Your task to perform on an android device: create a new album in the google photos Image 0: 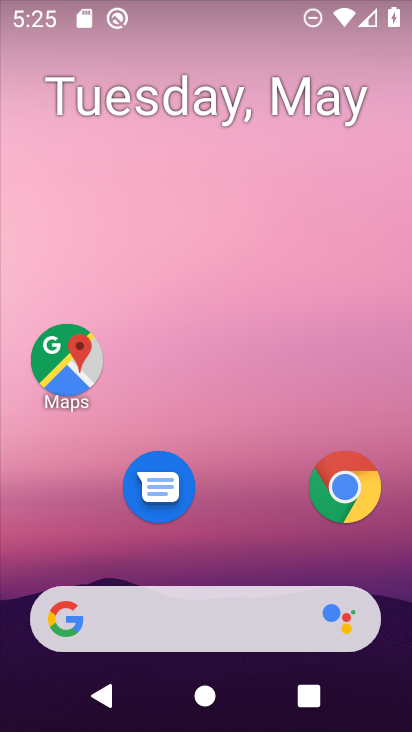
Step 0: drag from (257, 566) to (200, 89)
Your task to perform on an android device: create a new album in the google photos Image 1: 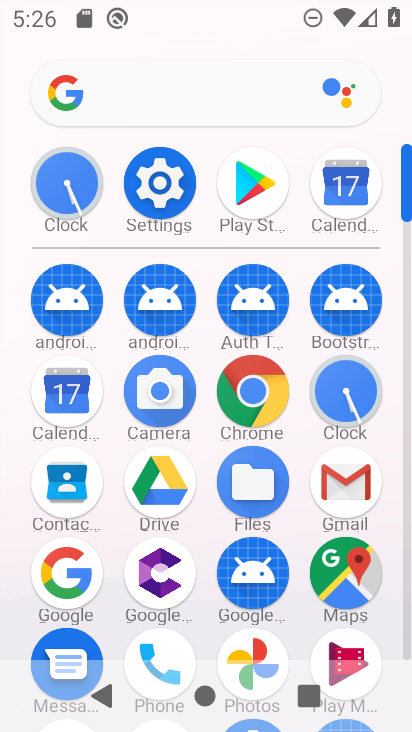
Step 1: click (272, 645)
Your task to perform on an android device: create a new album in the google photos Image 2: 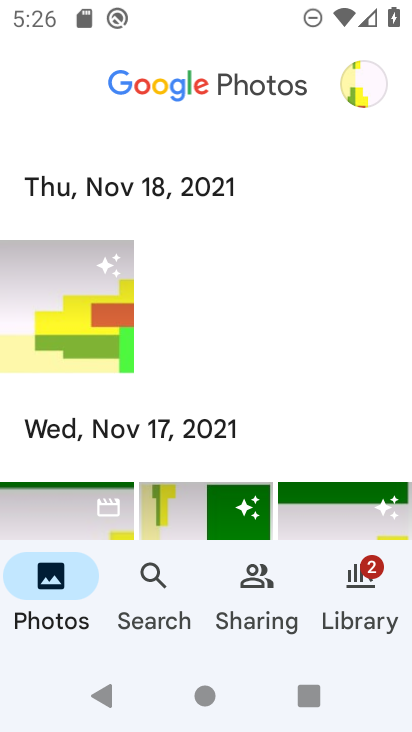
Step 2: click (352, 88)
Your task to perform on an android device: create a new album in the google photos Image 3: 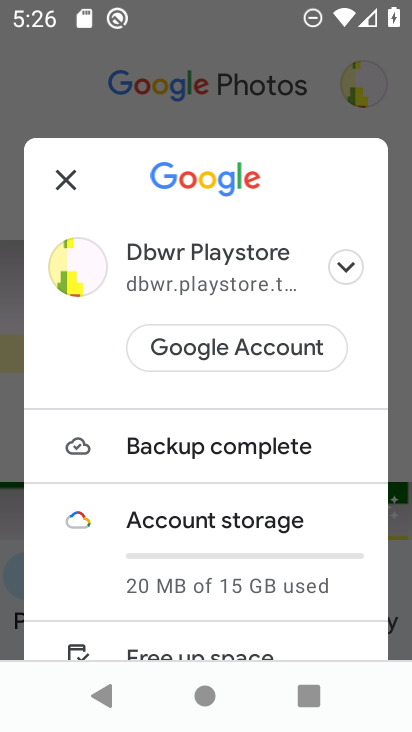
Step 3: click (97, 310)
Your task to perform on an android device: create a new album in the google photos Image 4: 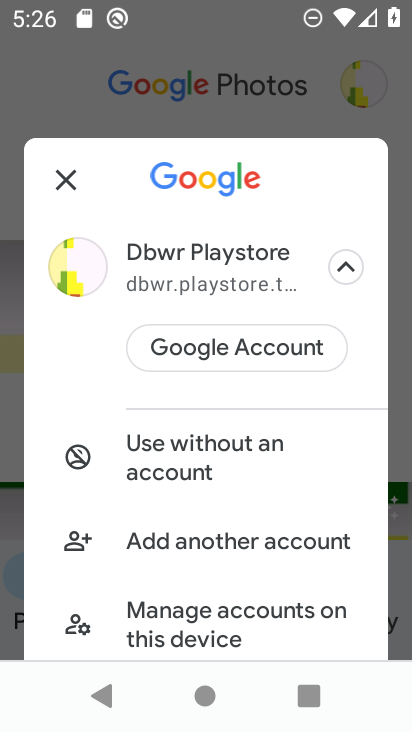
Step 4: click (99, 336)
Your task to perform on an android device: create a new album in the google photos Image 5: 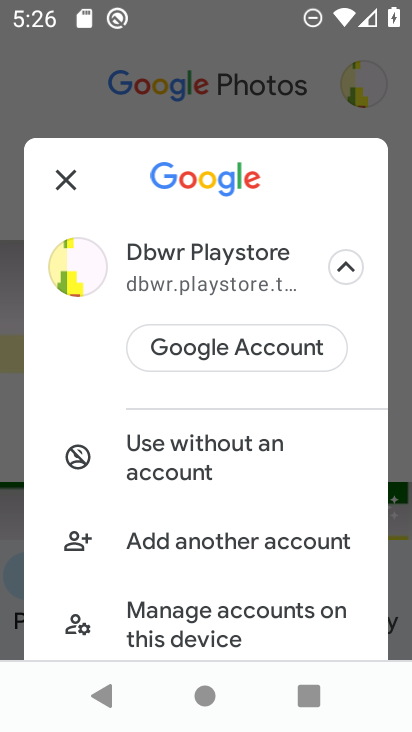
Step 5: drag from (100, 370) to (96, 216)
Your task to perform on an android device: create a new album in the google photos Image 6: 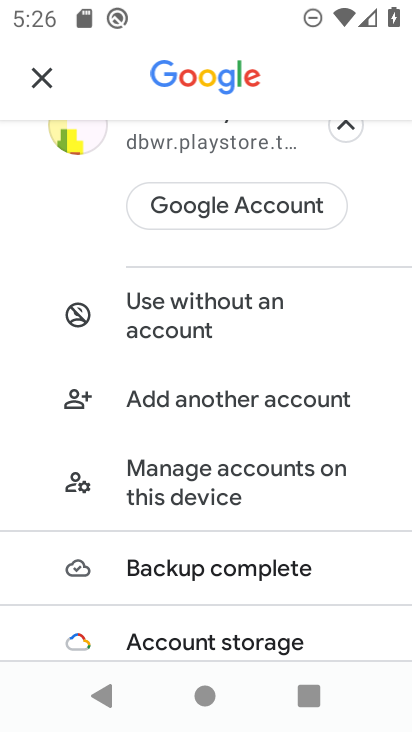
Step 6: click (330, 140)
Your task to perform on an android device: create a new album in the google photos Image 7: 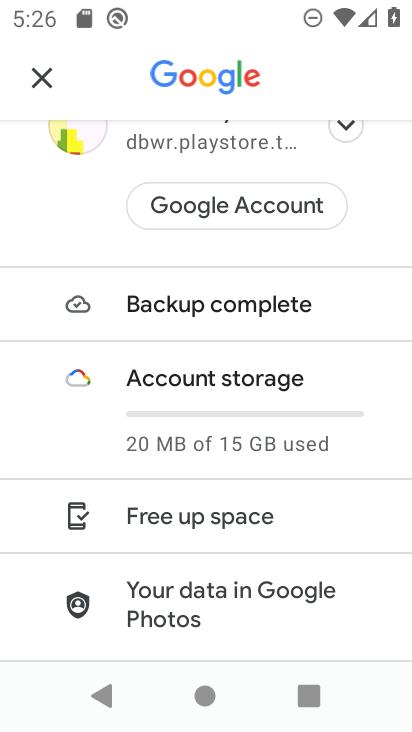
Step 7: drag from (201, 509) to (196, 378)
Your task to perform on an android device: create a new album in the google photos Image 8: 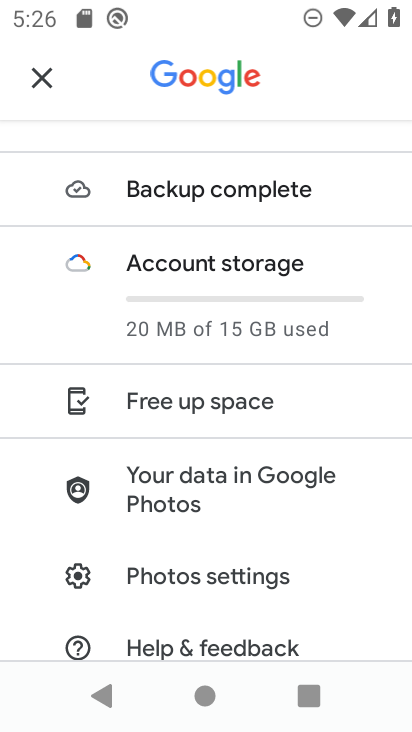
Step 8: click (212, 573)
Your task to perform on an android device: create a new album in the google photos Image 9: 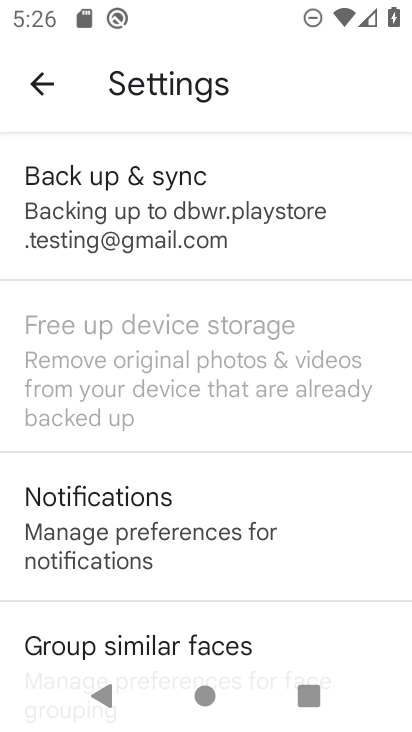
Step 9: click (38, 85)
Your task to perform on an android device: create a new album in the google photos Image 10: 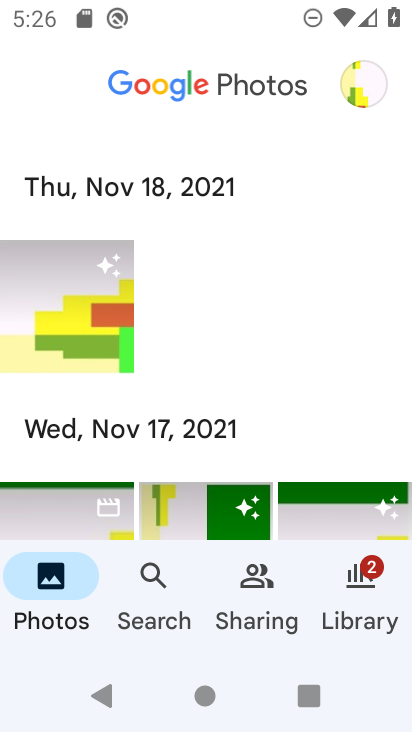
Step 10: click (353, 596)
Your task to perform on an android device: create a new album in the google photos Image 11: 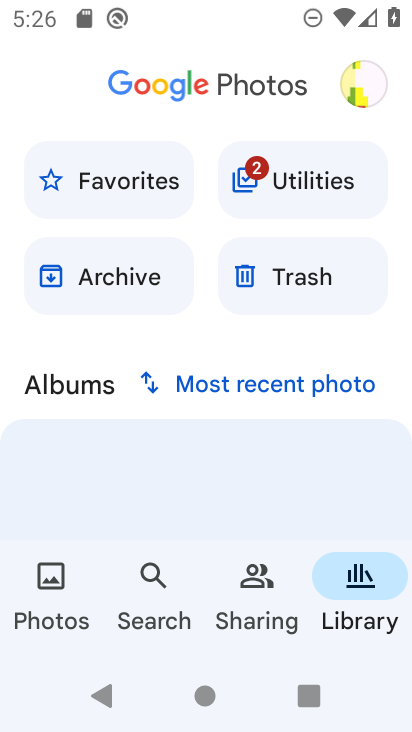
Step 11: click (143, 460)
Your task to perform on an android device: create a new album in the google photos Image 12: 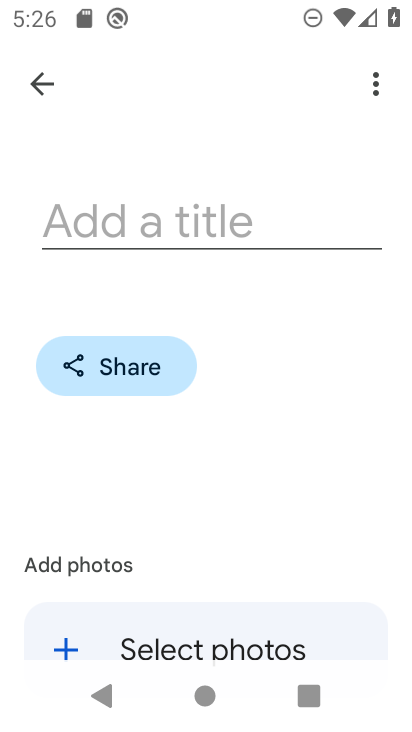
Step 12: click (97, 235)
Your task to perform on an android device: create a new album in the google photos Image 13: 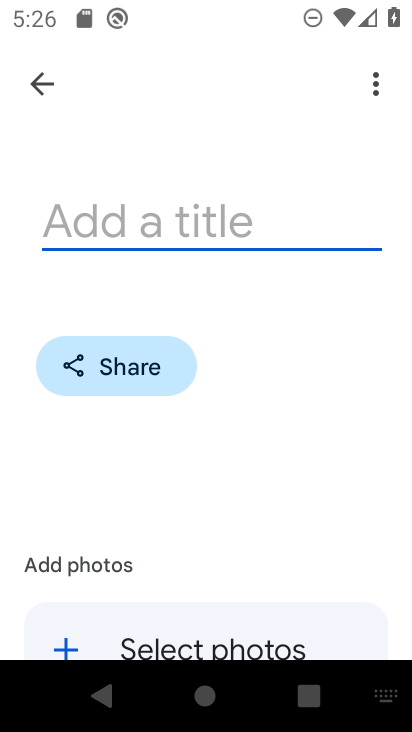
Step 13: type "xcvxcbv"
Your task to perform on an android device: create a new album in the google photos Image 14: 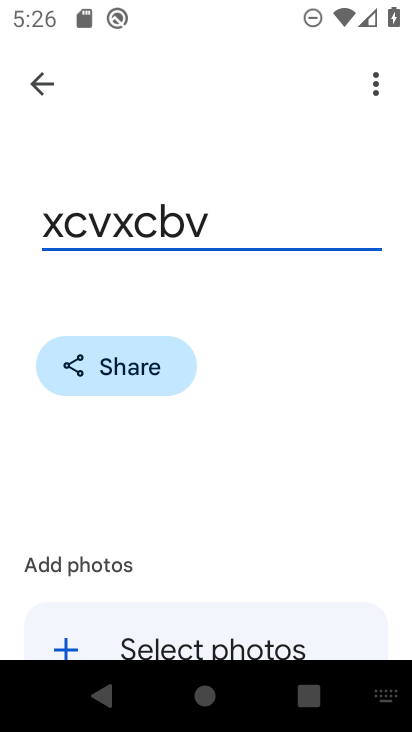
Step 14: click (200, 629)
Your task to perform on an android device: create a new album in the google photos Image 15: 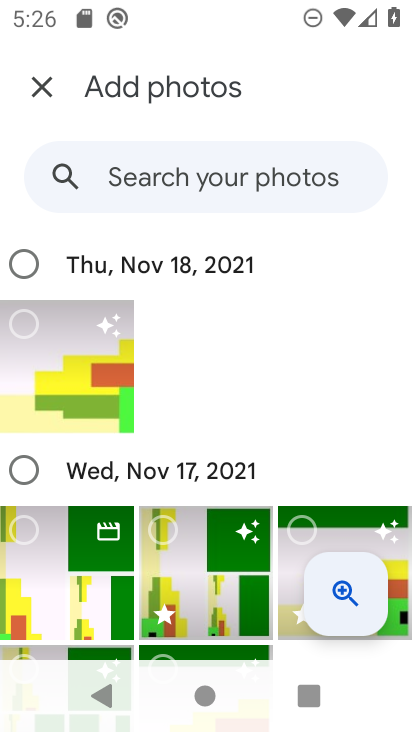
Step 15: click (24, 262)
Your task to perform on an android device: create a new album in the google photos Image 16: 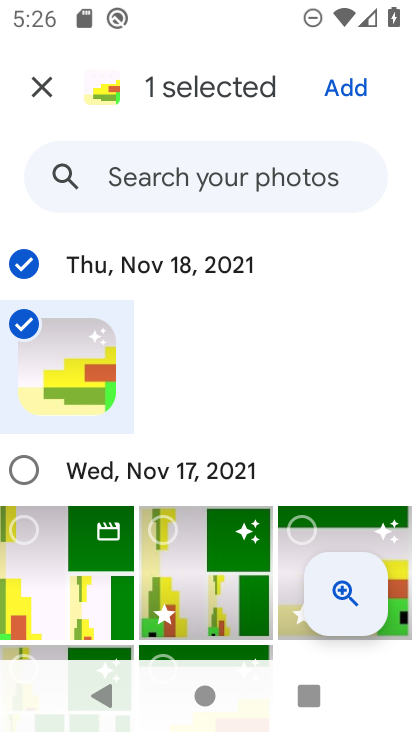
Step 16: click (83, 493)
Your task to perform on an android device: create a new album in the google photos Image 17: 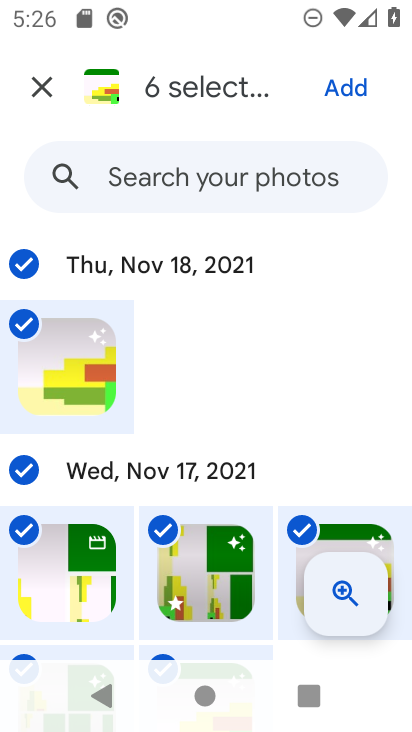
Step 17: task complete